Your task to perform on an android device: toggle airplane mode Image 0: 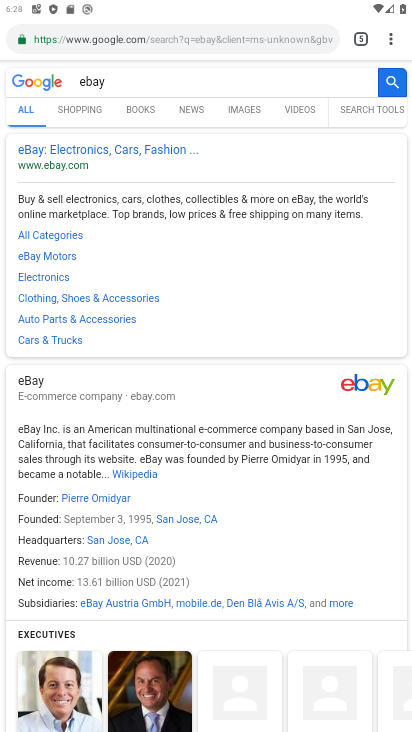
Step 0: press home button
Your task to perform on an android device: toggle airplane mode Image 1: 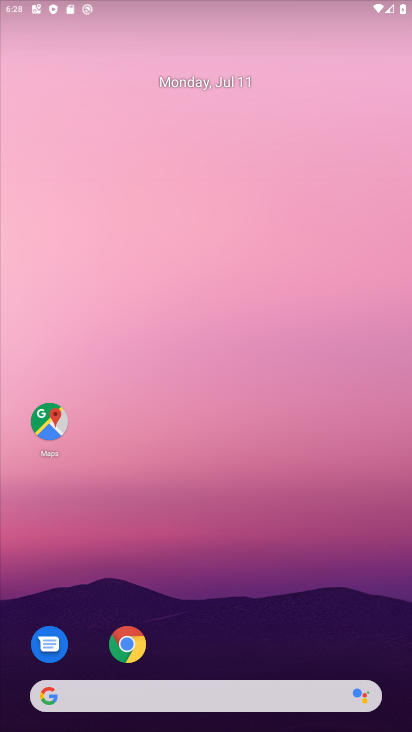
Step 1: drag from (147, 15) to (200, 692)
Your task to perform on an android device: toggle airplane mode Image 2: 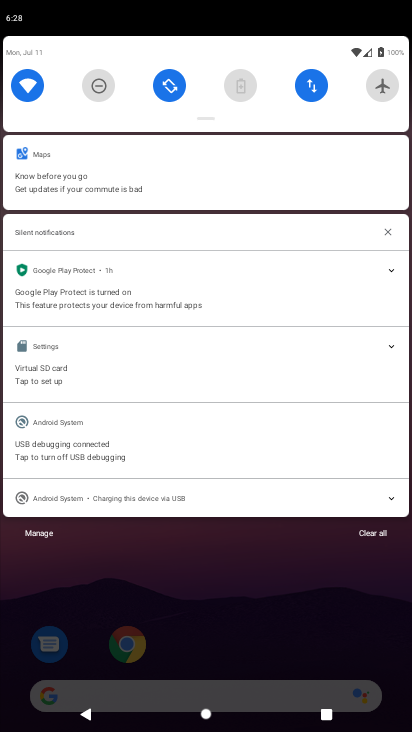
Step 2: drag from (223, 125) to (201, 729)
Your task to perform on an android device: toggle airplane mode Image 3: 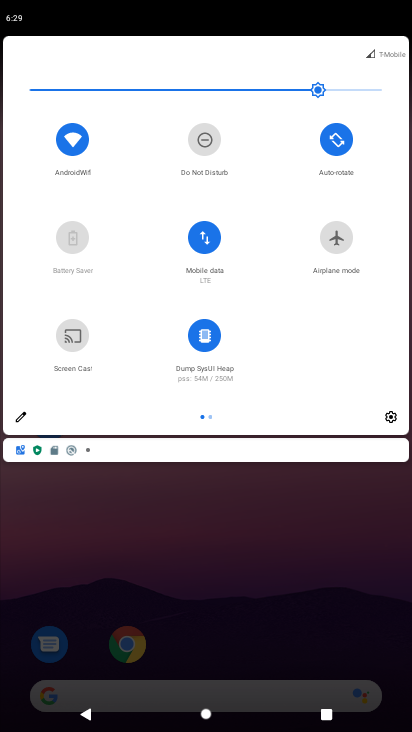
Step 3: click (340, 234)
Your task to perform on an android device: toggle airplane mode Image 4: 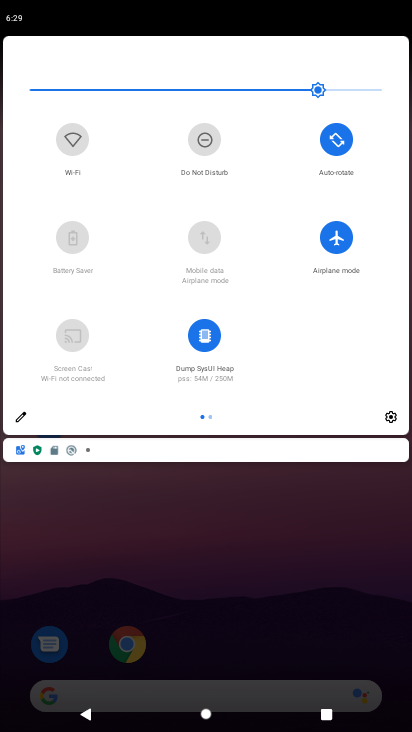
Step 4: task complete